Your task to perform on an android device: See recent photos Image 0: 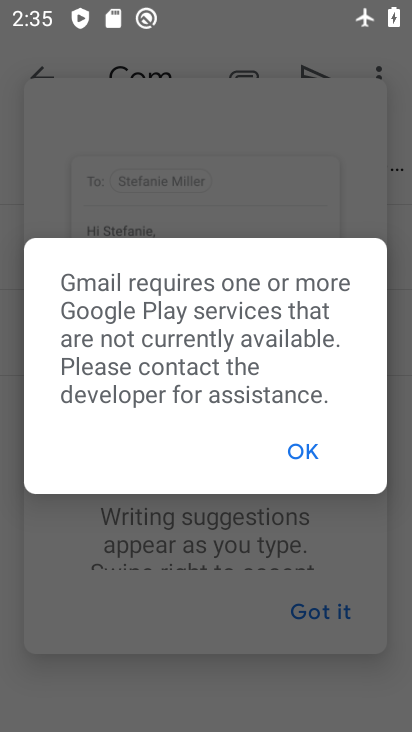
Step 0: press home button
Your task to perform on an android device: See recent photos Image 1: 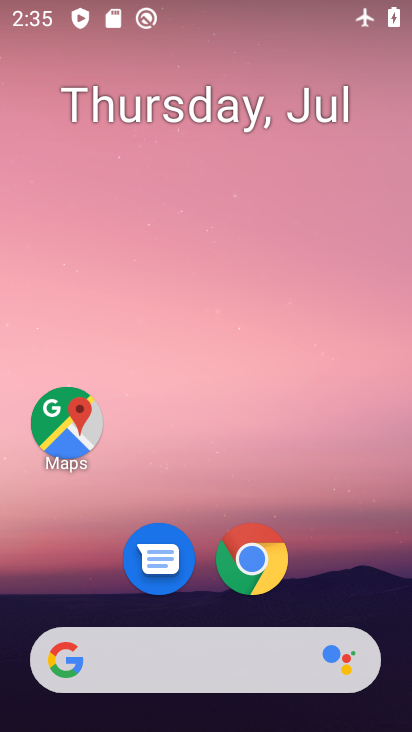
Step 1: drag from (206, 542) to (282, 256)
Your task to perform on an android device: See recent photos Image 2: 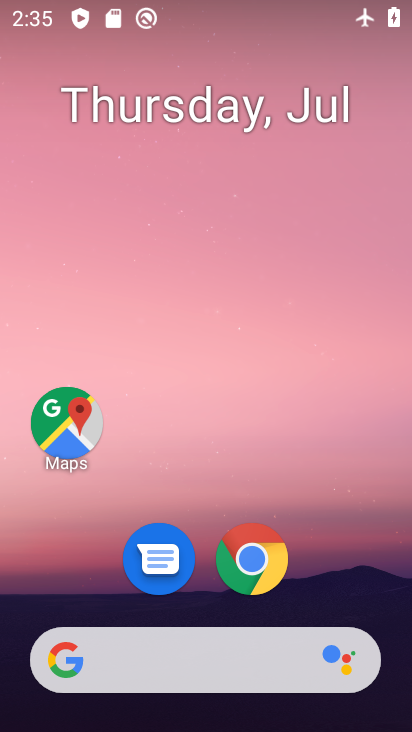
Step 2: drag from (225, 476) to (265, 127)
Your task to perform on an android device: See recent photos Image 3: 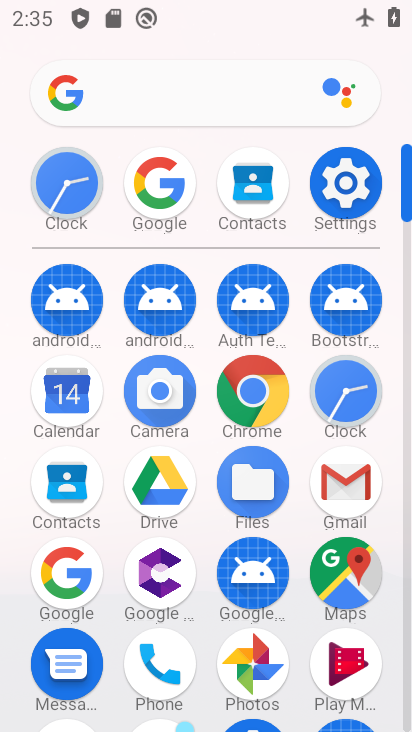
Step 3: click (280, 673)
Your task to perform on an android device: See recent photos Image 4: 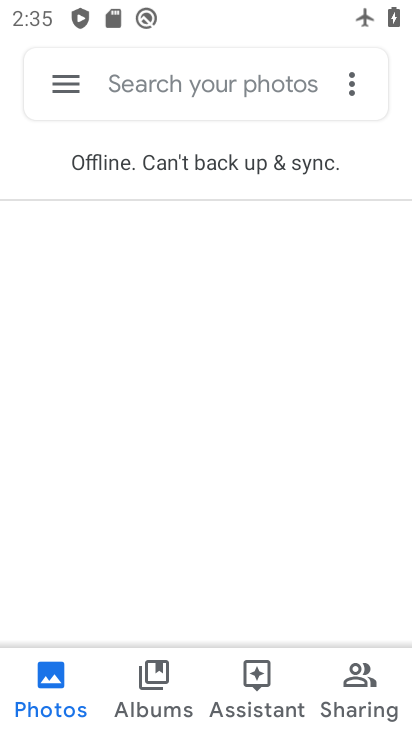
Step 4: task complete